Your task to perform on an android device: find snoozed emails in the gmail app Image 0: 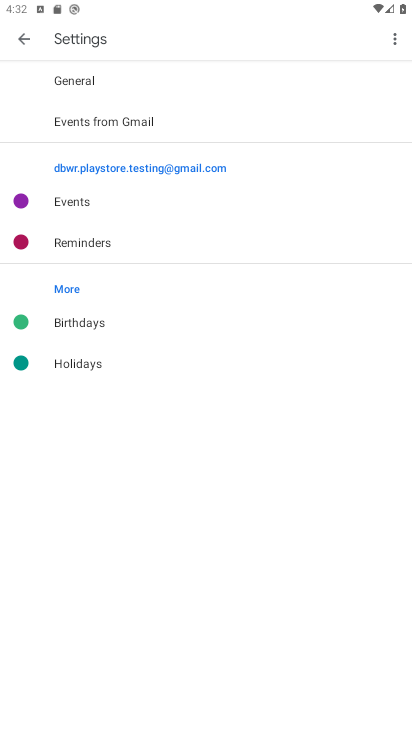
Step 0: press home button
Your task to perform on an android device: find snoozed emails in the gmail app Image 1: 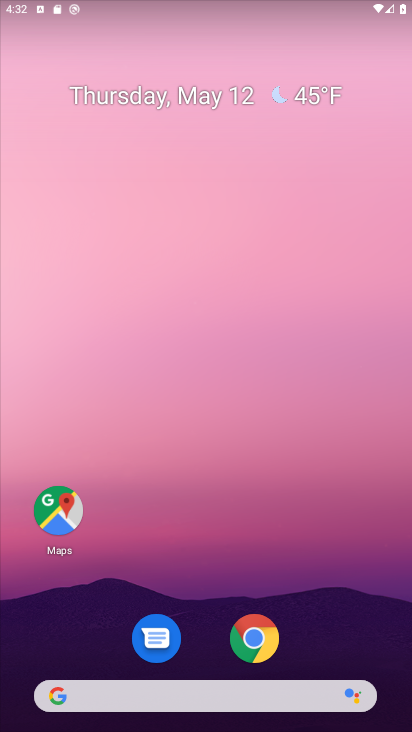
Step 1: drag from (197, 171) to (166, 71)
Your task to perform on an android device: find snoozed emails in the gmail app Image 2: 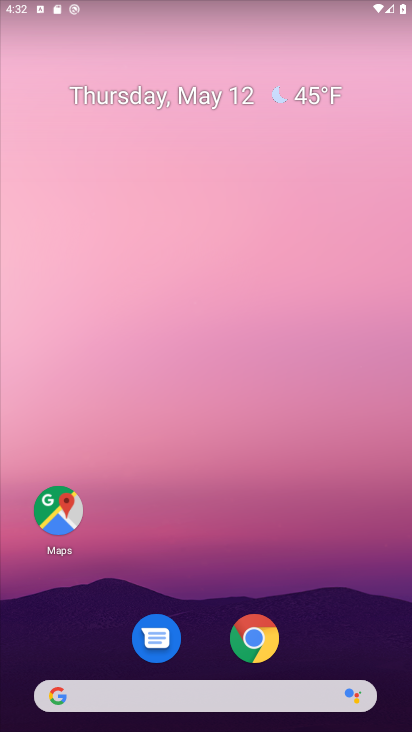
Step 2: drag from (307, 480) to (180, 0)
Your task to perform on an android device: find snoozed emails in the gmail app Image 3: 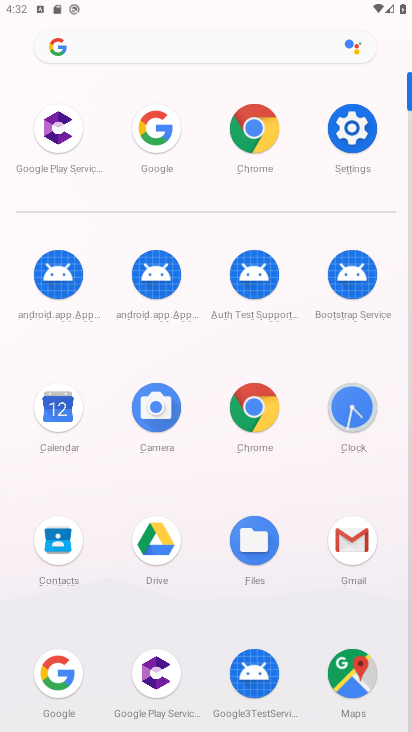
Step 3: click (346, 541)
Your task to perform on an android device: find snoozed emails in the gmail app Image 4: 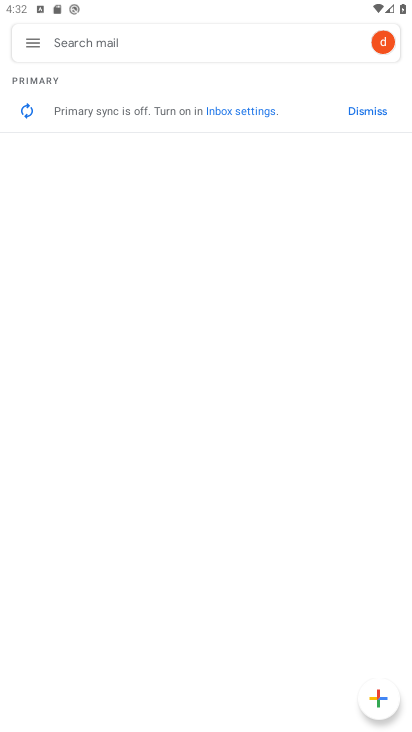
Step 4: click (30, 43)
Your task to perform on an android device: find snoozed emails in the gmail app Image 5: 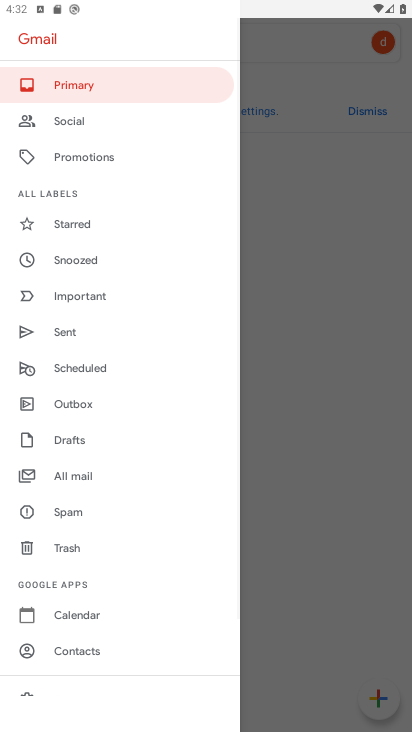
Step 5: click (92, 254)
Your task to perform on an android device: find snoozed emails in the gmail app Image 6: 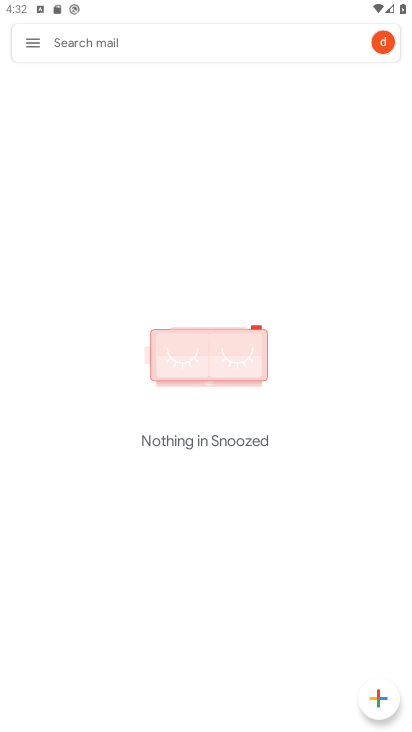
Step 6: task complete